Your task to perform on an android device: Open CNN.com Image 0: 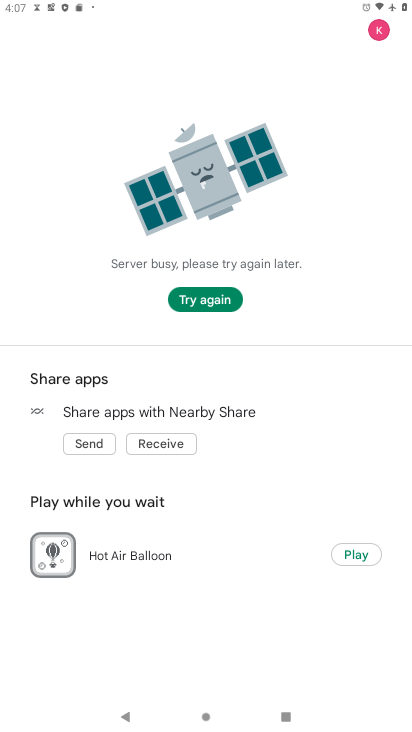
Step 0: press back button
Your task to perform on an android device: Open CNN.com Image 1: 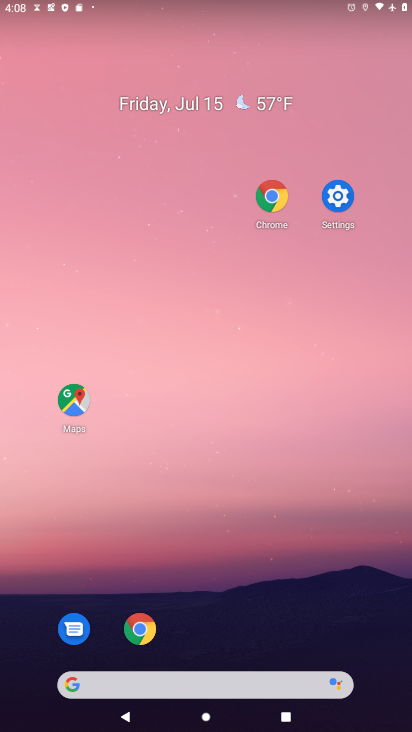
Step 1: drag from (223, 438) to (182, 204)
Your task to perform on an android device: Open CNN.com Image 2: 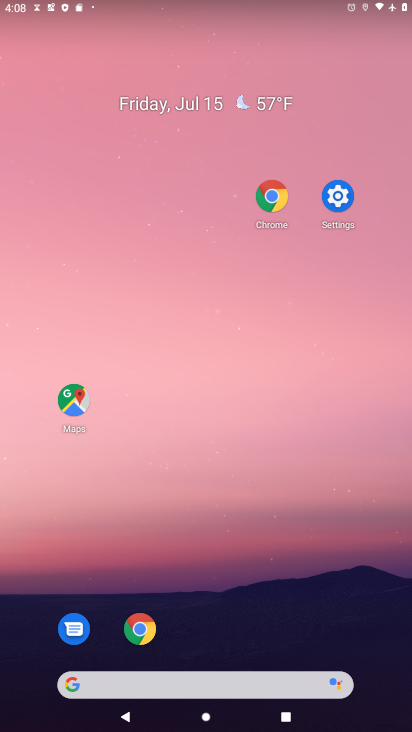
Step 2: drag from (201, 450) to (155, 4)
Your task to perform on an android device: Open CNN.com Image 3: 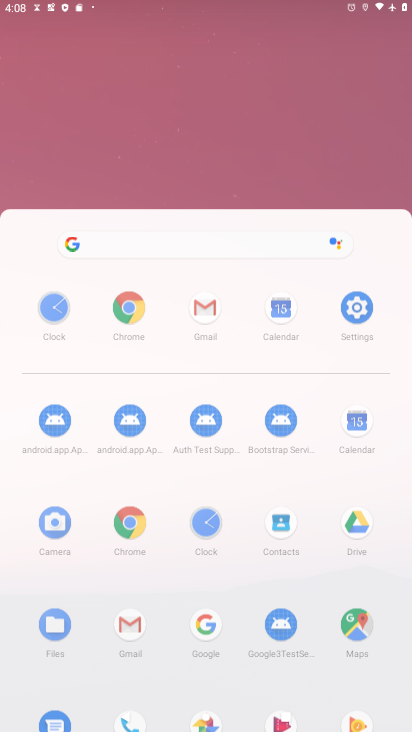
Step 3: drag from (222, 422) to (203, 103)
Your task to perform on an android device: Open CNN.com Image 4: 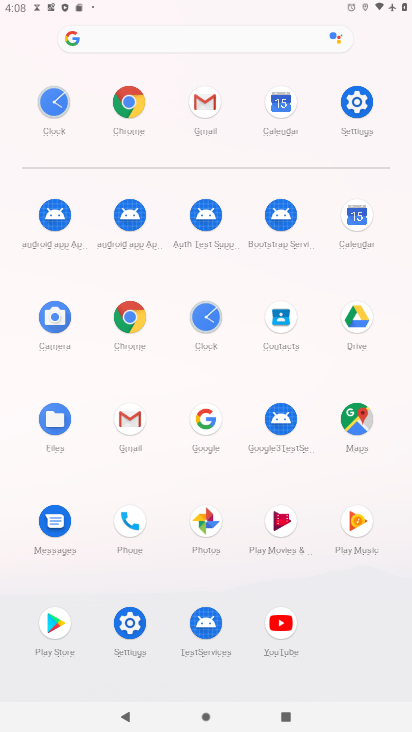
Step 4: drag from (194, 288) to (194, 65)
Your task to perform on an android device: Open CNN.com Image 5: 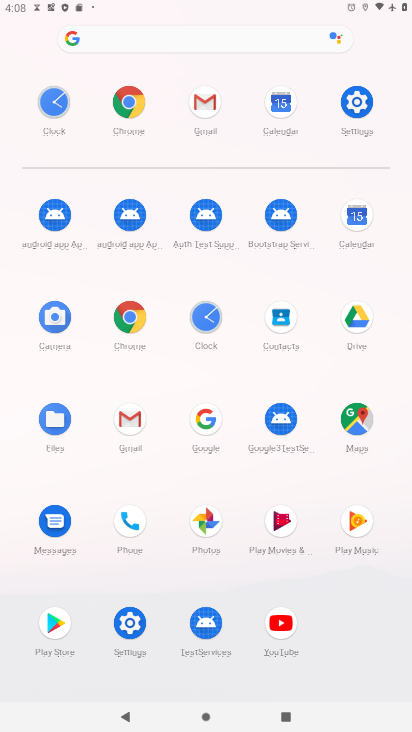
Step 5: click (121, 103)
Your task to perform on an android device: Open CNN.com Image 6: 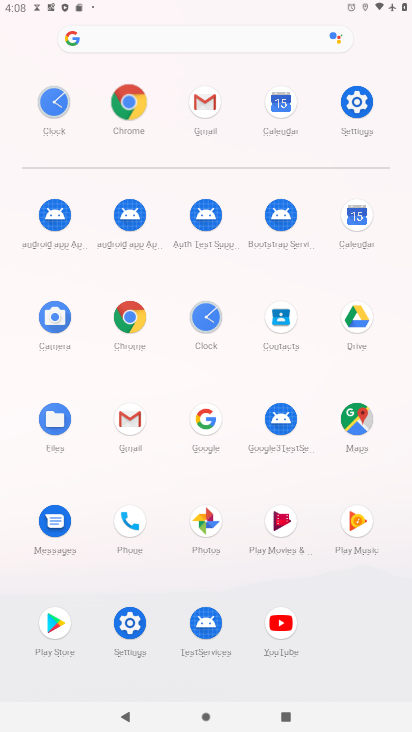
Step 6: click (122, 101)
Your task to perform on an android device: Open CNN.com Image 7: 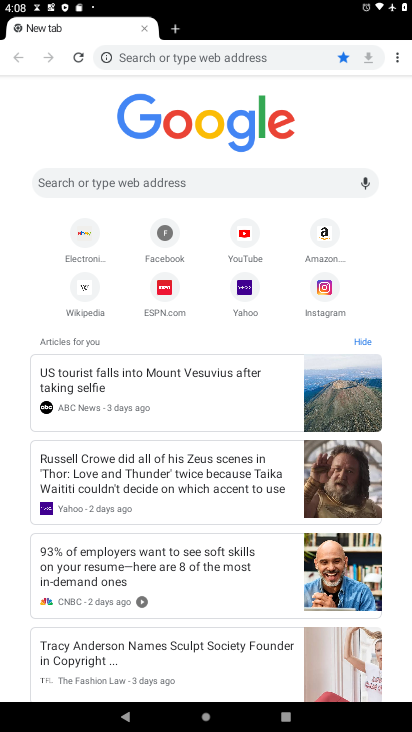
Step 7: click (68, 173)
Your task to perform on an android device: Open CNN.com Image 8: 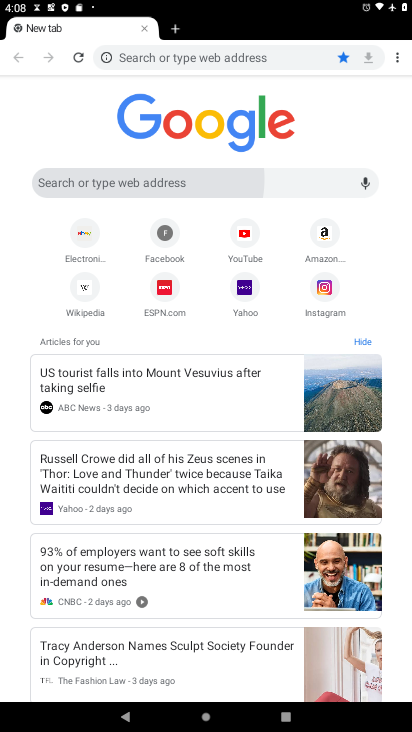
Step 8: click (68, 176)
Your task to perform on an android device: Open CNN.com Image 9: 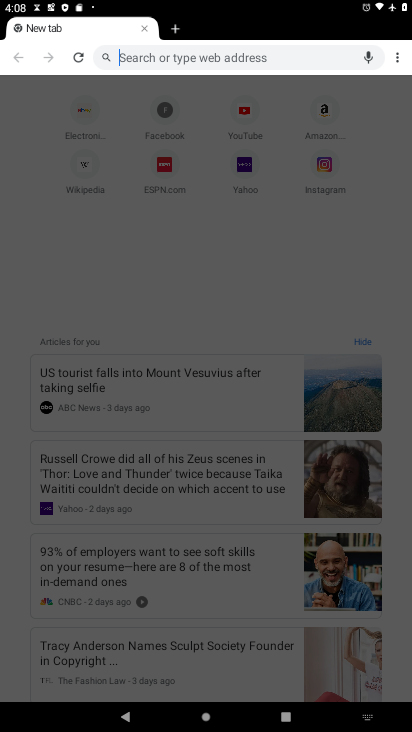
Step 9: click (70, 185)
Your task to perform on an android device: Open CNN.com Image 10: 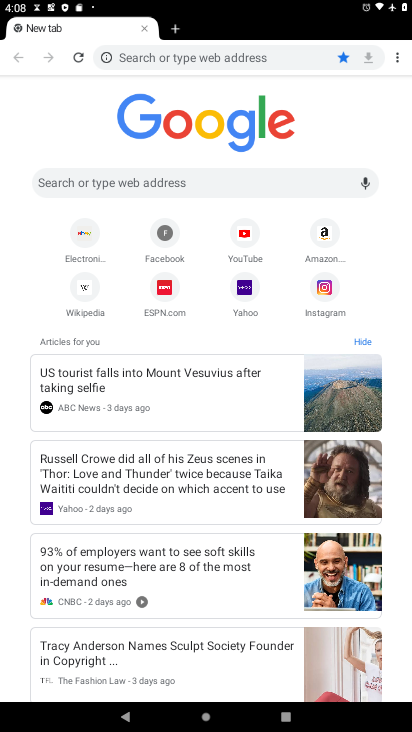
Step 10: type "CNN.com"
Your task to perform on an android device: Open CNN.com Image 11: 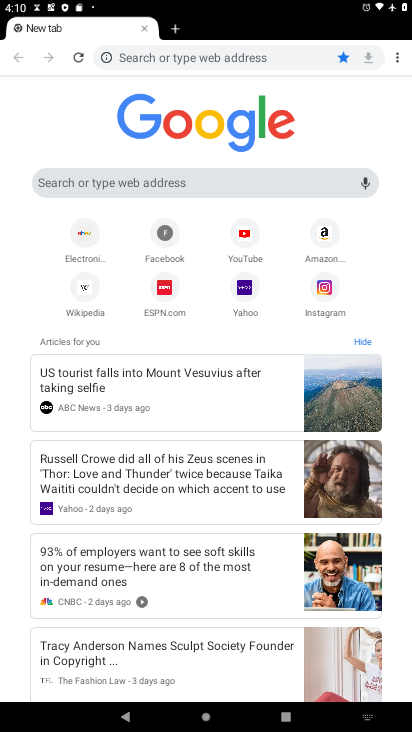
Step 11: click (120, 180)
Your task to perform on an android device: Open CNN.com Image 12: 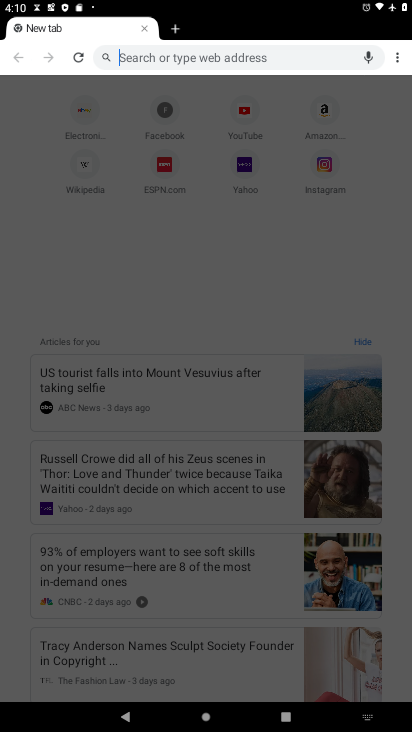
Step 12: click (120, 180)
Your task to perform on an android device: Open CNN.com Image 13: 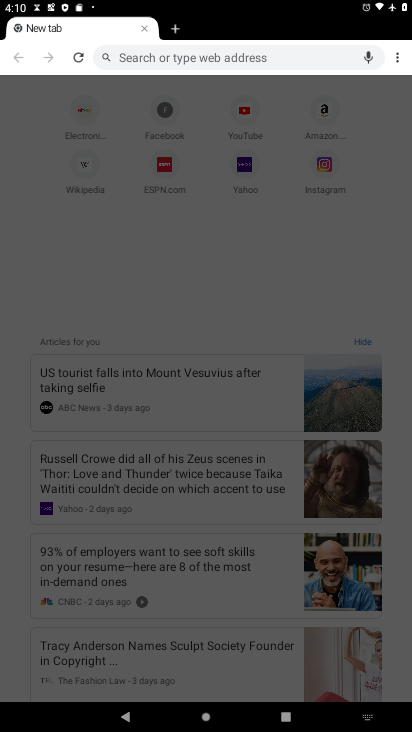
Step 13: click (180, 180)
Your task to perform on an android device: Open CNN.com Image 14: 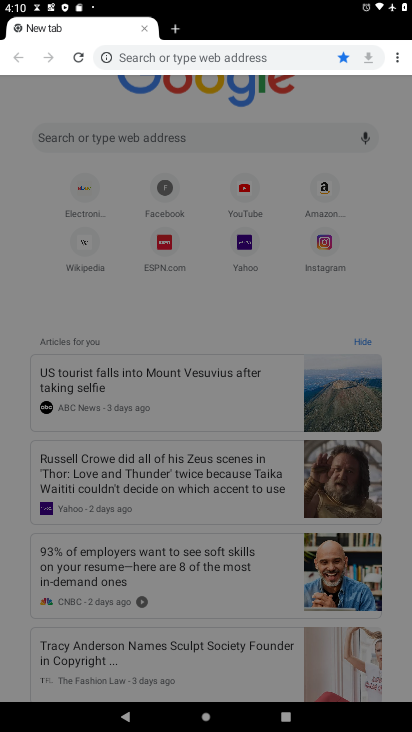
Step 14: task complete